Your task to perform on an android device: What does the iPhone 8 look like? Image 0: 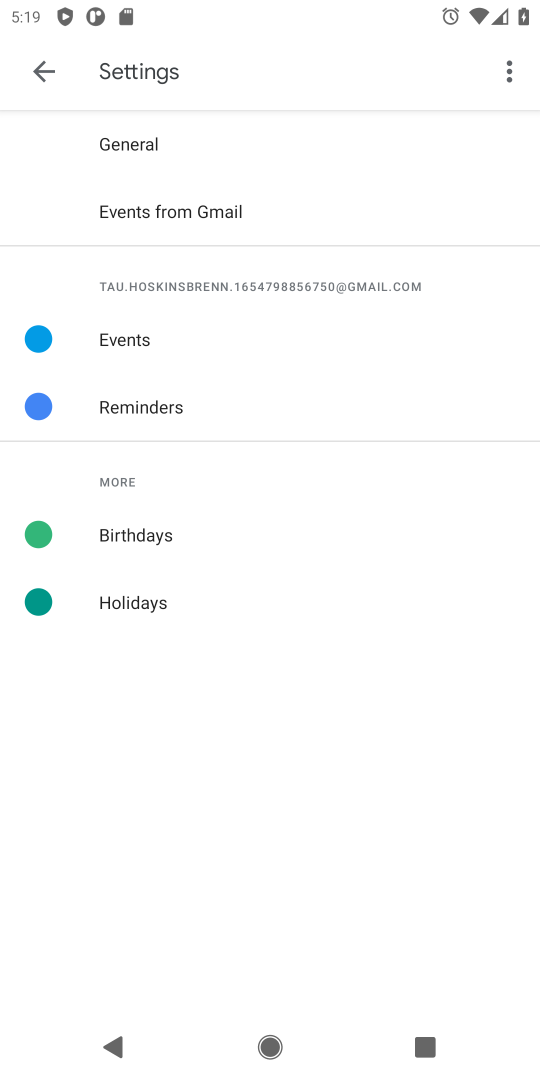
Step 0: press home button
Your task to perform on an android device: What does the iPhone 8 look like? Image 1: 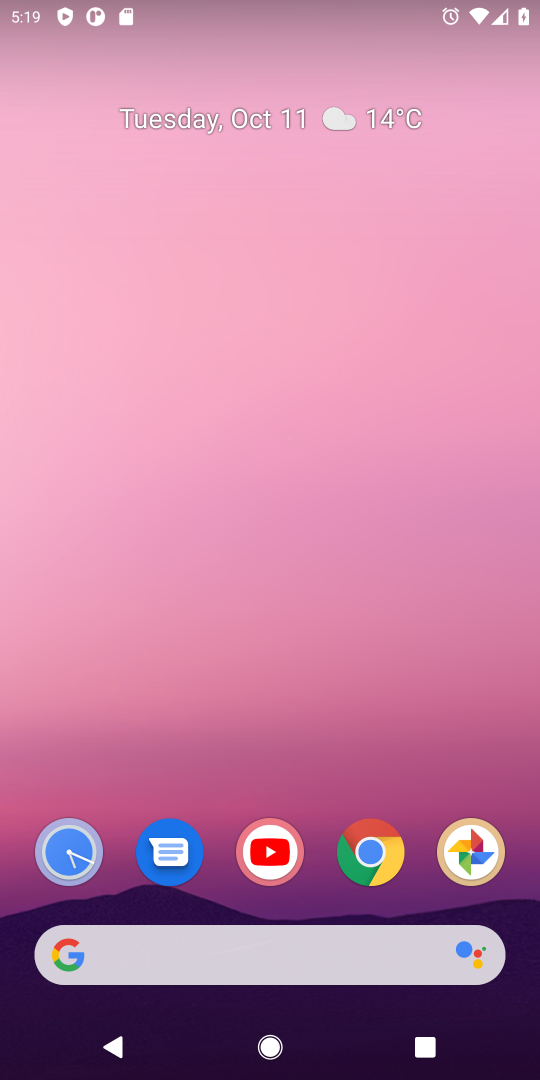
Step 1: click (378, 864)
Your task to perform on an android device: What does the iPhone 8 look like? Image 2: 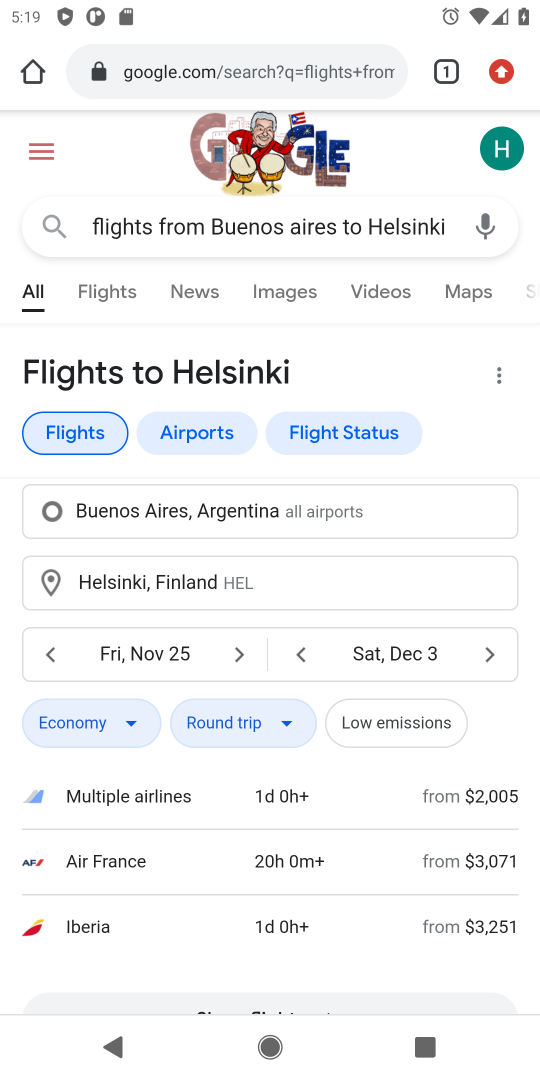
Step 2: click (265, 86)
Your task to perform on an android device: What does the iPhone 8 look like? Image 3: 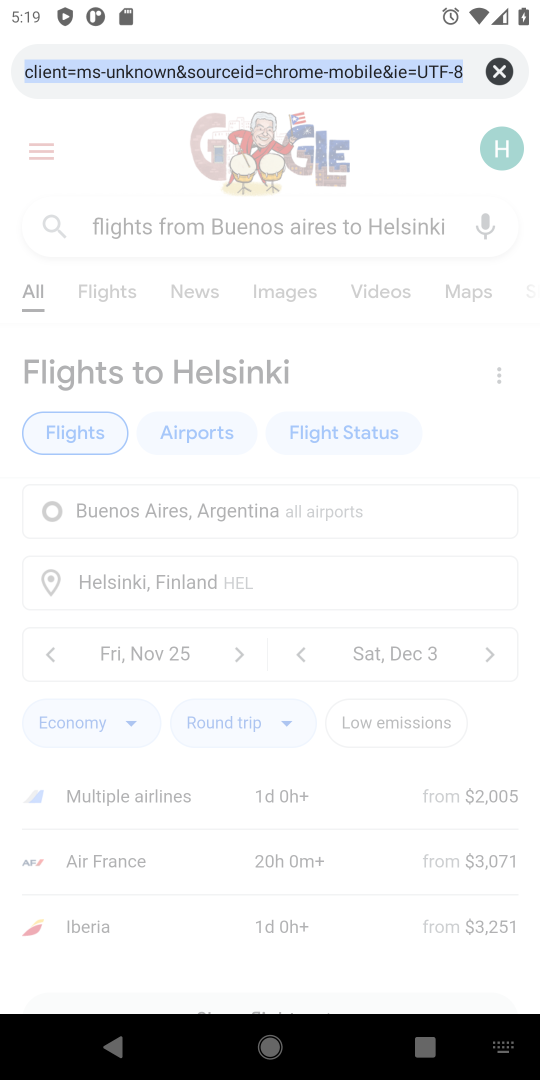
Step 3: type "What does the iPhone 8 look like?"
Your task to perform on an android device: What does the iPhone 8 look like? Image 4: 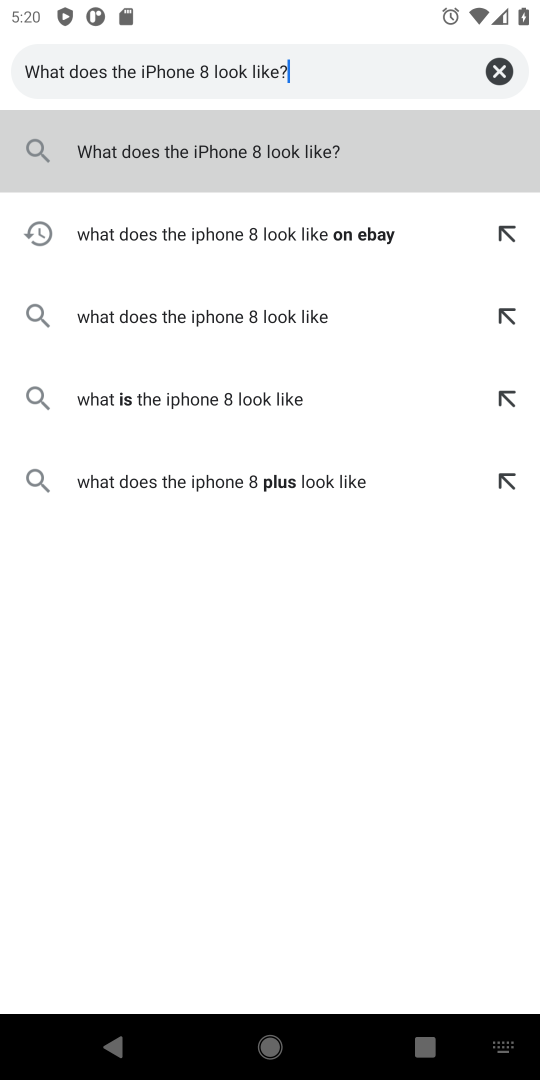
Step 4: click (363, 136)
Your task to perform on an android device: What does the iPhone 8 look like? Image 5: 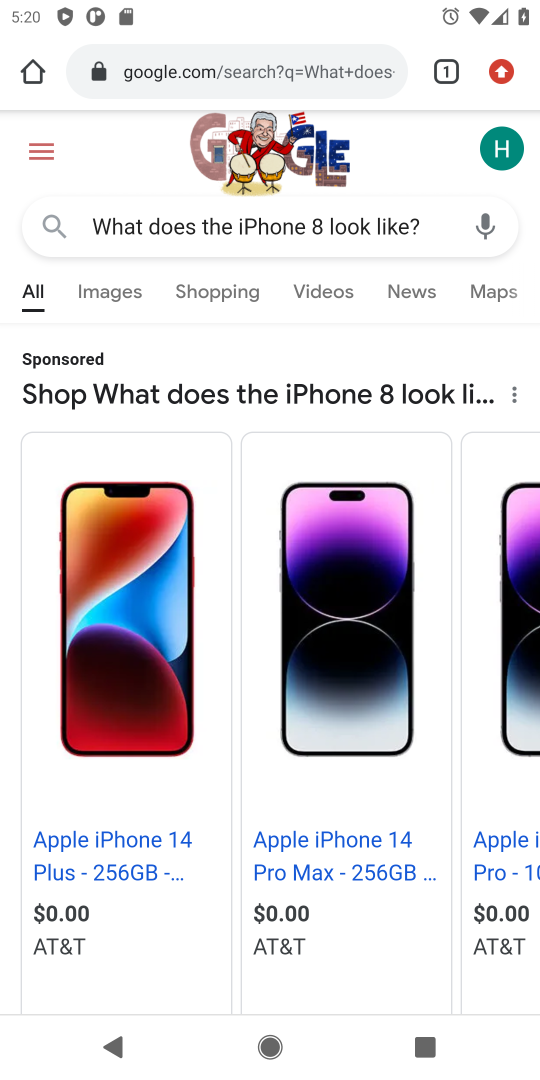
Step 5: task complete